Your task to perform on an android device: toggle show notifications on the lock screen Image 0: 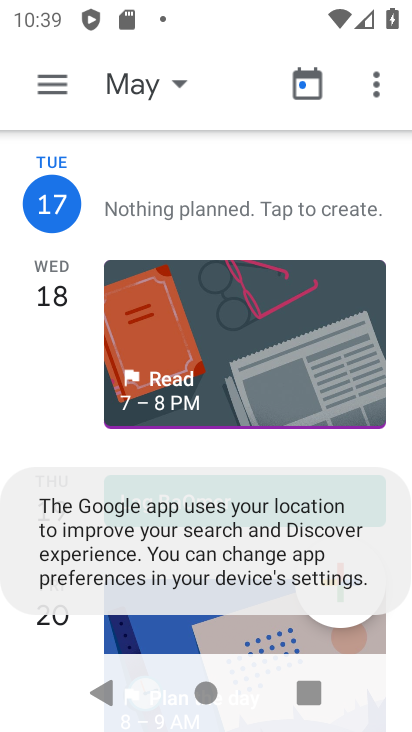
Step 0: press home button
Your task to perform on an android device: toggle show notifications on the lock screen Image 1: 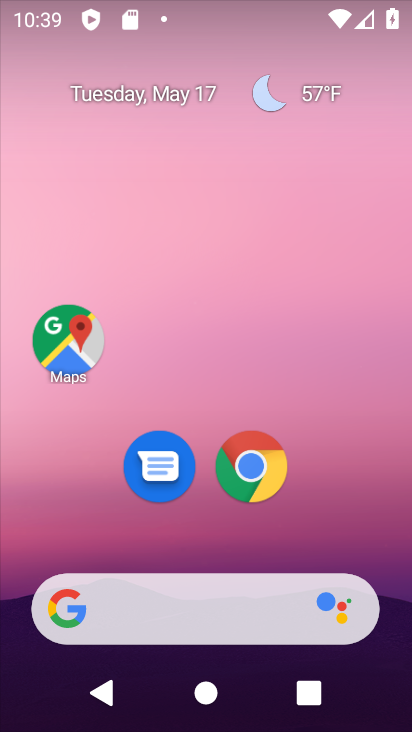
Step 1: drag from (199, 566) to (200, 276)
Your task to perform on an android device: toggle show notifications on the lock screen Image 2: 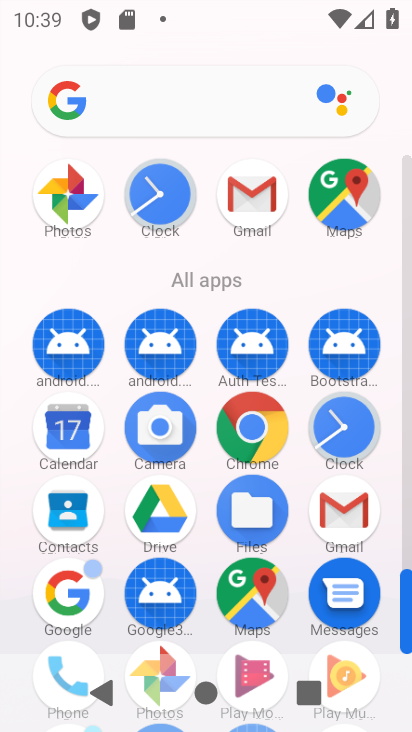
Step 2: drag from (197, 622) to (256, 218)
Your task to perform on an android device: toggle show notifications on the lock screen Image 3: 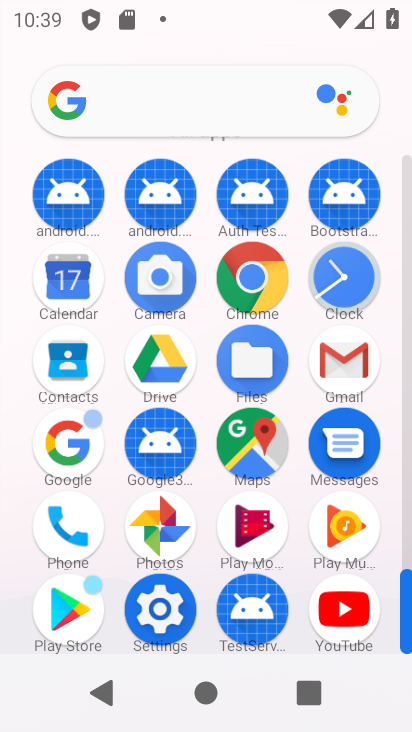
Step 3: drag from (197, 508) to (210, 291)
Your task to perform on an android device: toggle show notifications on the lock screen Image 4: 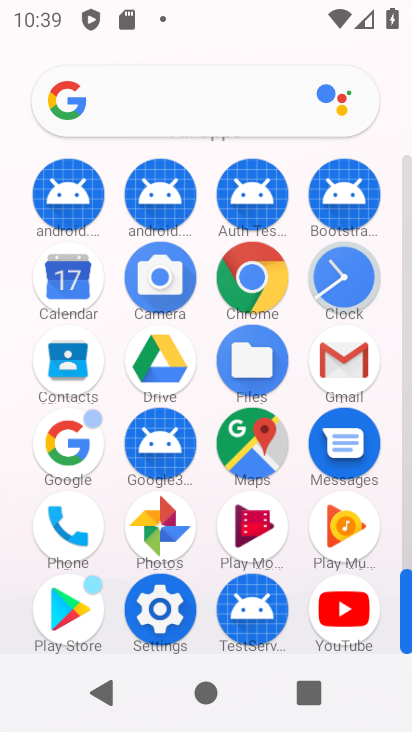
Step 4: click (159, 610)
Your task to perform on an android device: toggle show notifications on the lock screen Image 5: 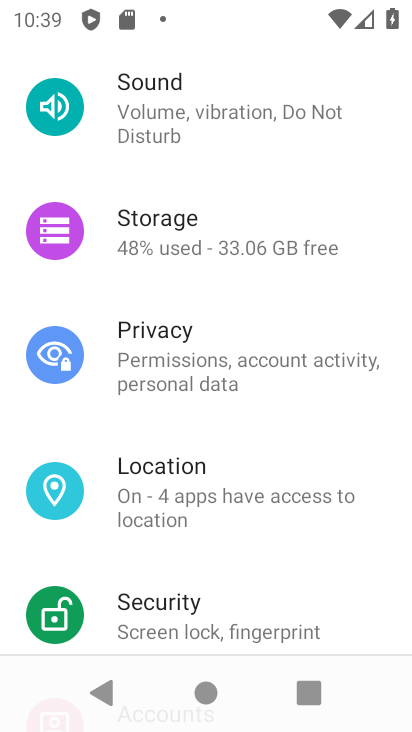
Step 5: drag from (189, 611) to (213, 323)
Your task to perform on an android device: toggle show notifications on the lock screen Image 6: 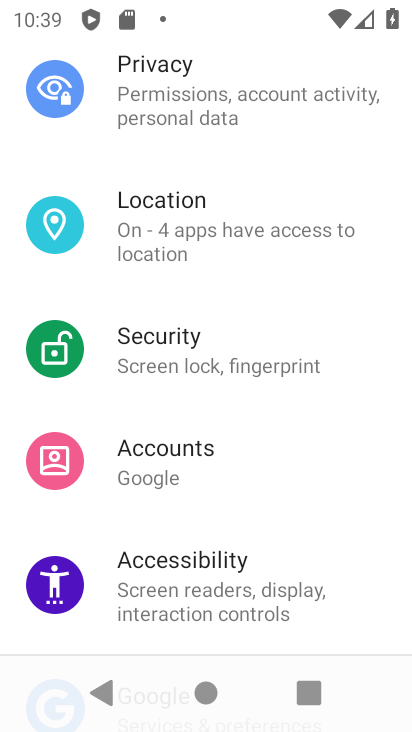
Step 6: click (158, 94)
Your task to perform on an android device: toggle show notifications on the lock screen Image 7: 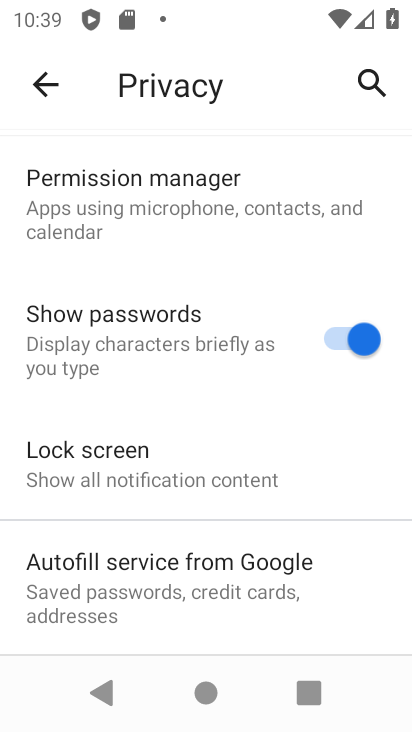
Step 7: click (126, 455)
Your task to perform on an android device: toggle show notifications on the lock screen Image 8: 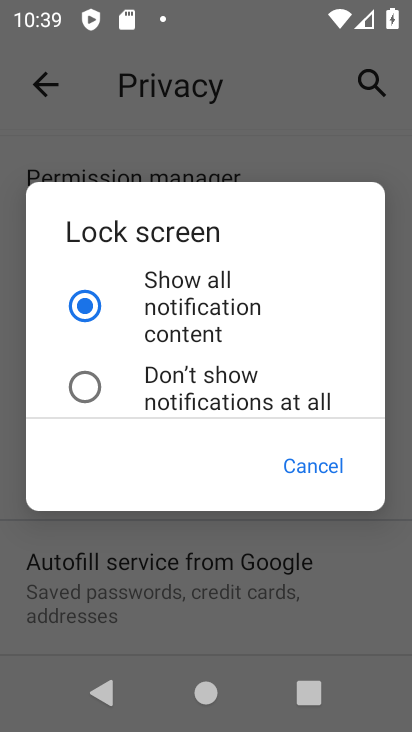
Step 8: click (312, 468)
Your task to perform on an android device: toggle show notifications on the lock screen Image 9: 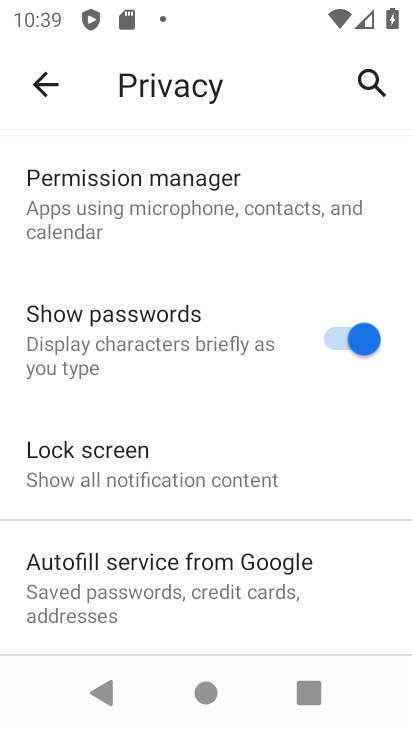
Step 9: task complete